Your task to perform on an android device: change the upload size in google photos Image 0: 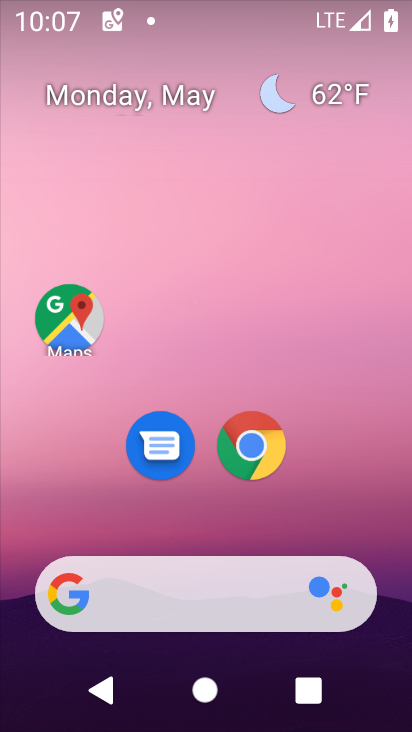
Step 0: drag from (404, 615) to (307, 38)
Your task to perform on an android device: change the upload size in google photos Image 1: 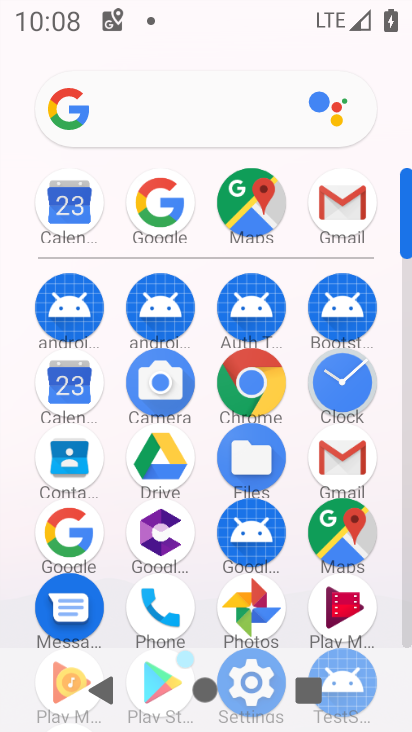
Step 1: click (236, 619)
Your task to perform on an android device: change the upload size in google photos Image 2: 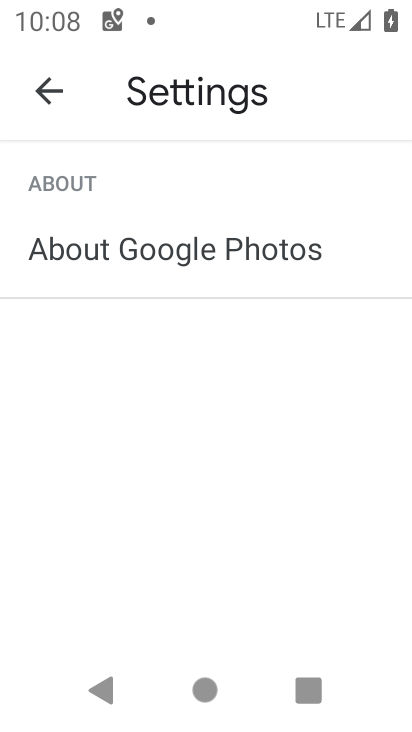
Step 2: press back button
Your task to perform on an android device: change the upload size in google photos Image 3: 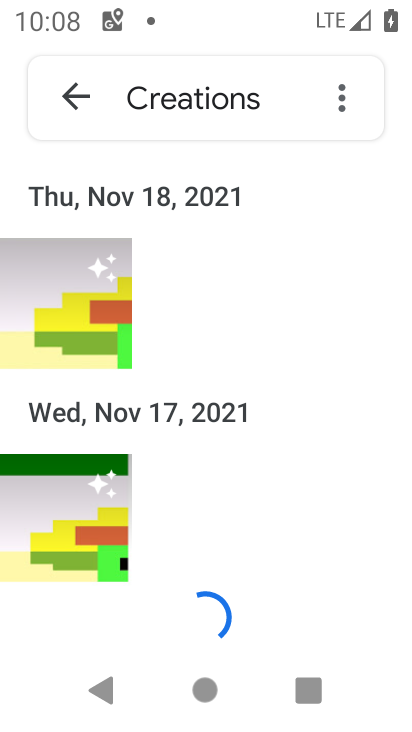
Step 3: press back button
Your task to perform on an android device: change the upload size in google photos Image 4: 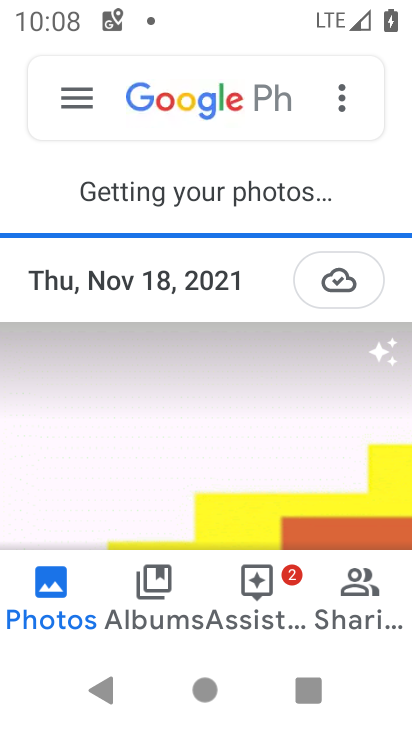
Step 4: click (342, 90)
Your task to perform on an android device: change the upload size in google photos Image 5: 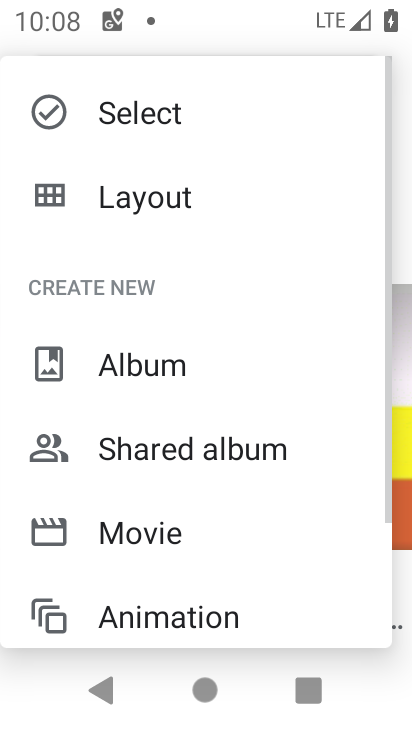
Step 5: drag from (256, 596) to (204, 158)
Your task to perform on an android device: change the upload size in google photos Image 6: 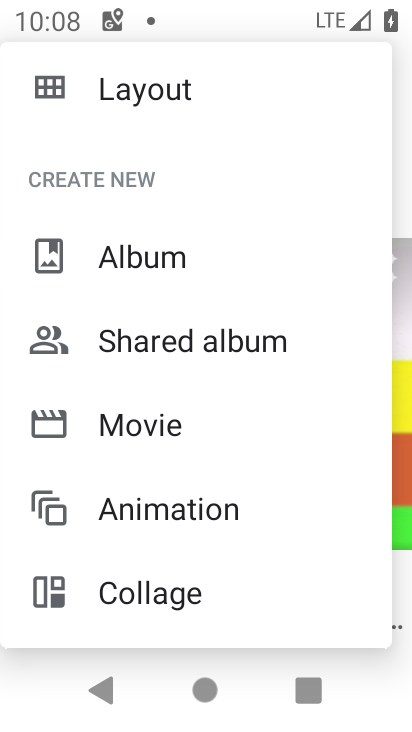
Step 6: press back button
Your task to perform on an android device: change the upload size in google photos Image 7: 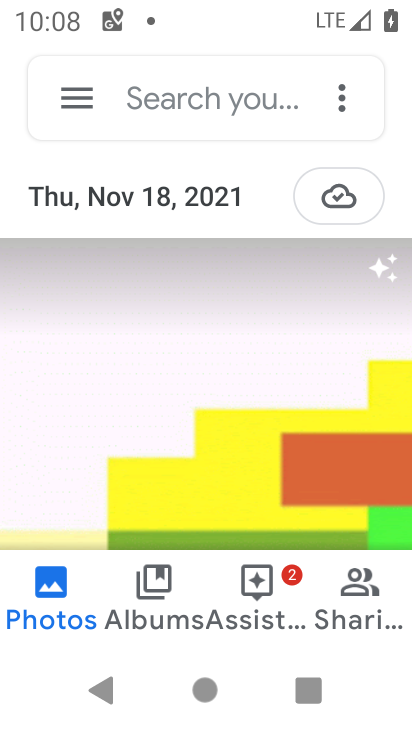
Step 7: press back button
Your task to perform on an android device: change the upload size in google photos Image 8: 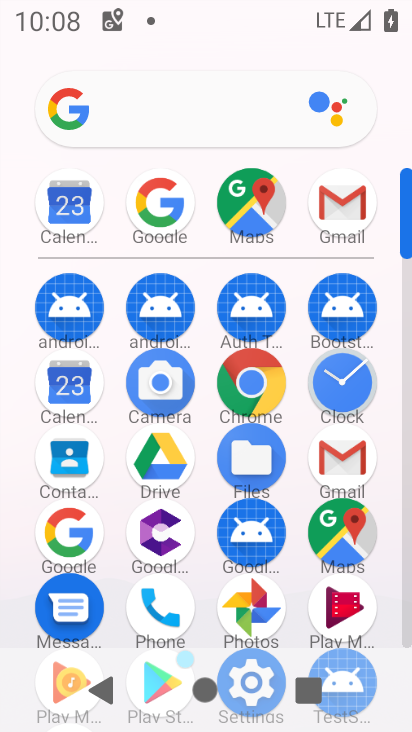
Step 8: click (269, 597)
Your task to perform on an android device: change the upload size in google photos Image 9: 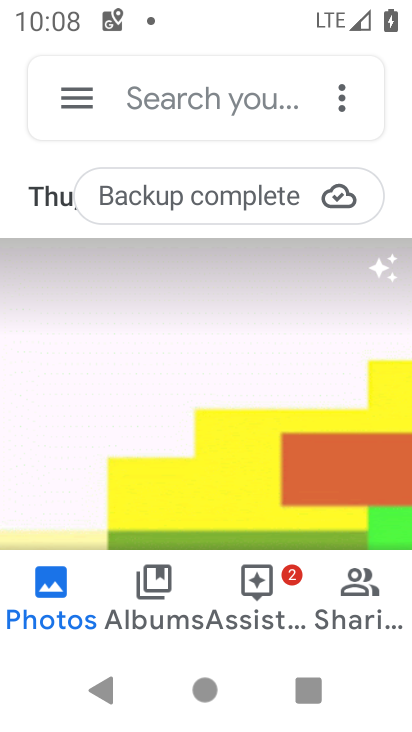
Step 9: click (75, 99)
Your task to perform on an android device: change the upload size in google photos Image 10: 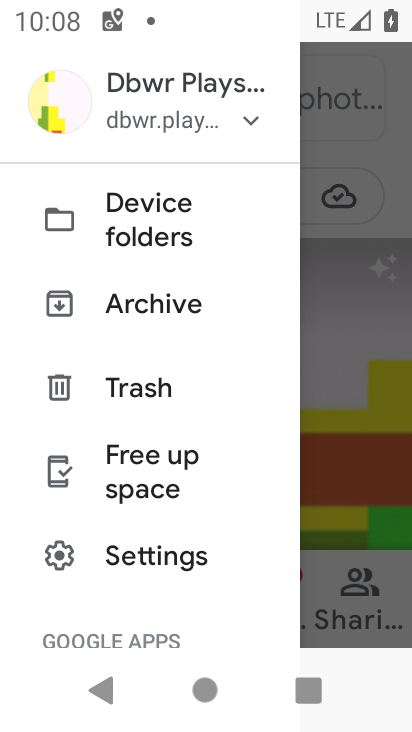
Step 10: click (143, 559)
Your task to perform on an android device: change the upload size in google photos Image 11: 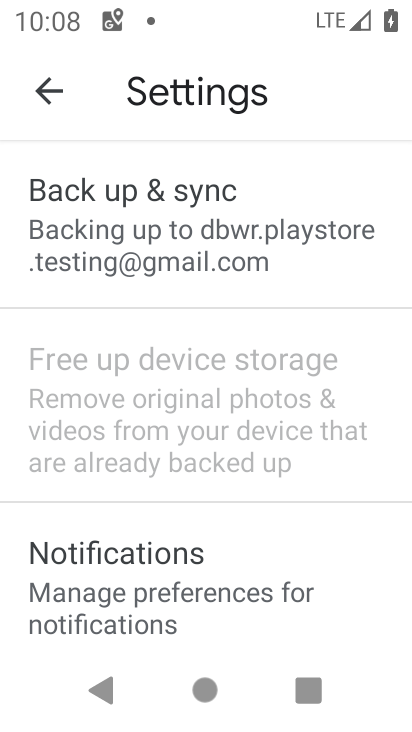
Step 11: click (236, 275)
Your task to perform on an android device: change the upload size in google photos Image 12: 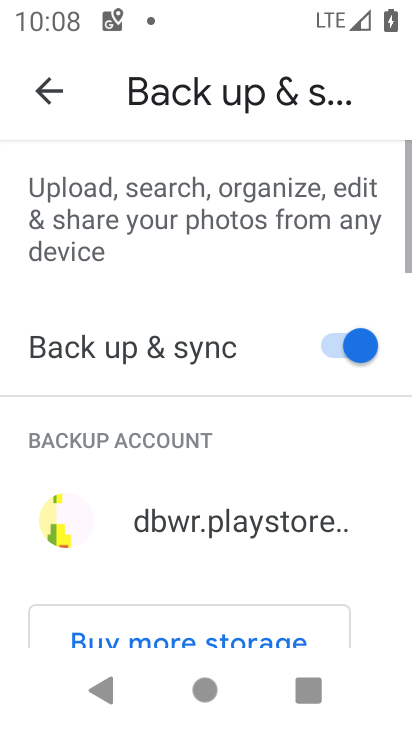
Step 12: drag from (265, 562) to (241, 49)
Your task to perform on an android device: change the upload size in google photos Image 13: 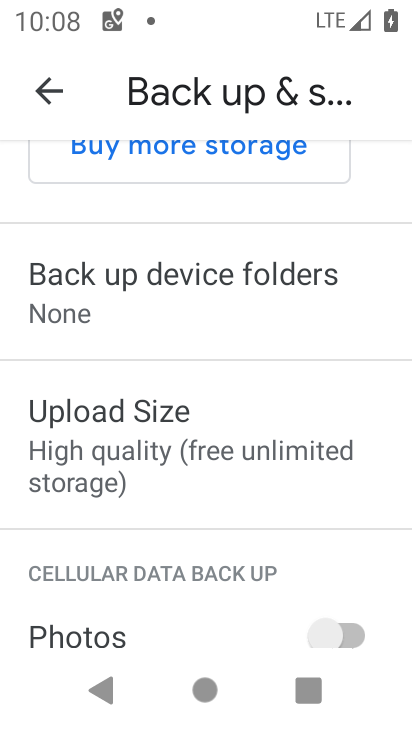
Step 13: click (256, 451)
Your task to perform on an android device: change the upload size in google photos Image 14: 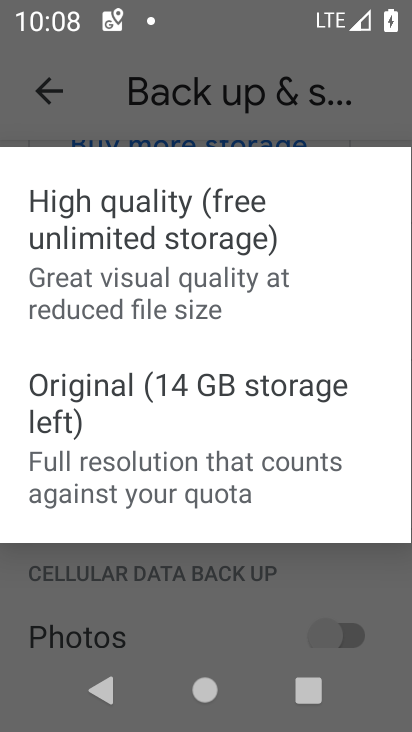
Step 14: click (176, 456)
Your task to perform on an android device: change the upload size in google photos Image 15: 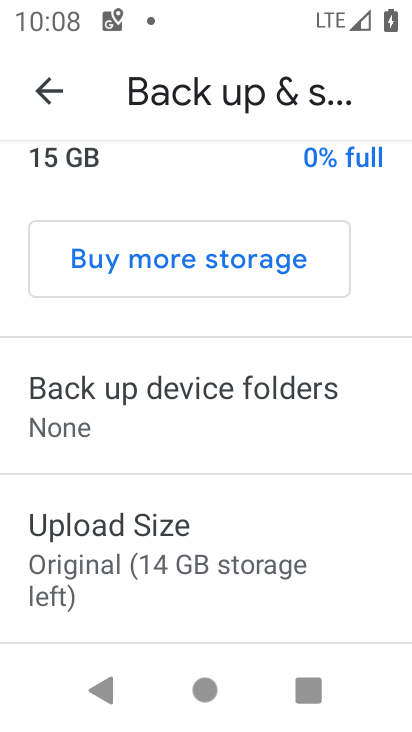
Step 15: task complete